Your task to perform on an android device: Open ESPN.com Image 0: 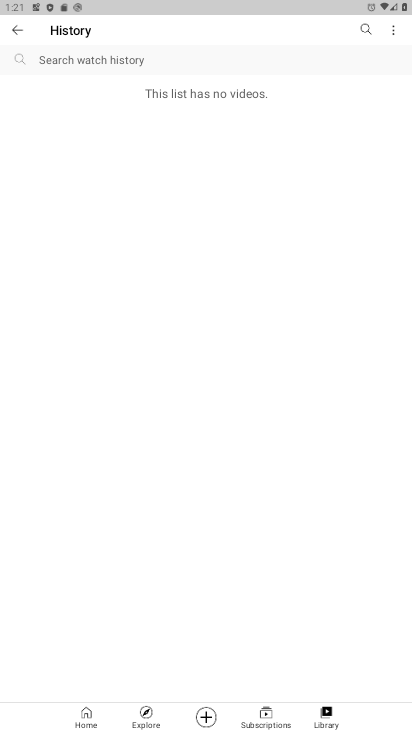
Step 0: press home button
Your task to perform on an android device: Open ESPN.com Image 1: 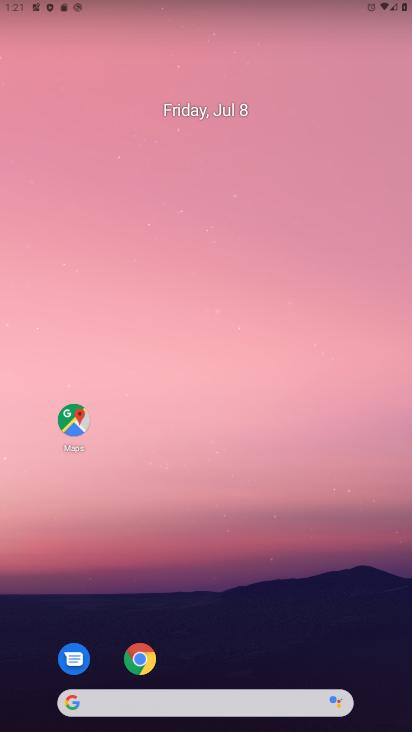
Step 1: click (140, 654)
Your task to perform on an android device: Open ESPN.com Image 2: 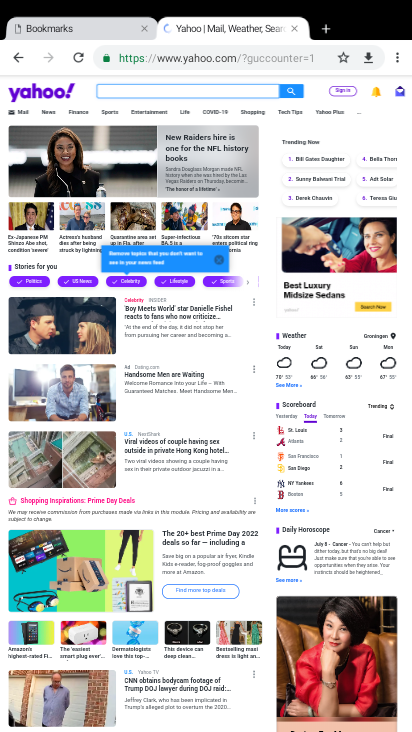
Step 2: click (401, 56)
Your task to perform on an android device: Open ESPN.com Image 3: 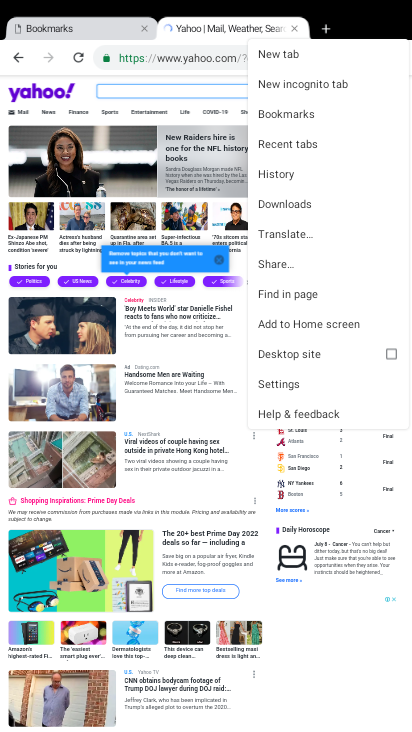
Step 3: click (299, 51)
Your task to perform on an android device: Open ESPN.com Image 4: 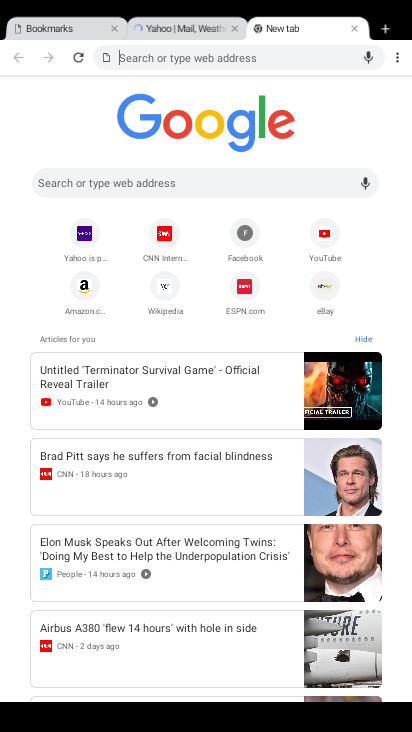
Step 4: click (248, 282)
Your task to perform on an android device: Open ESPN.com Image 5: 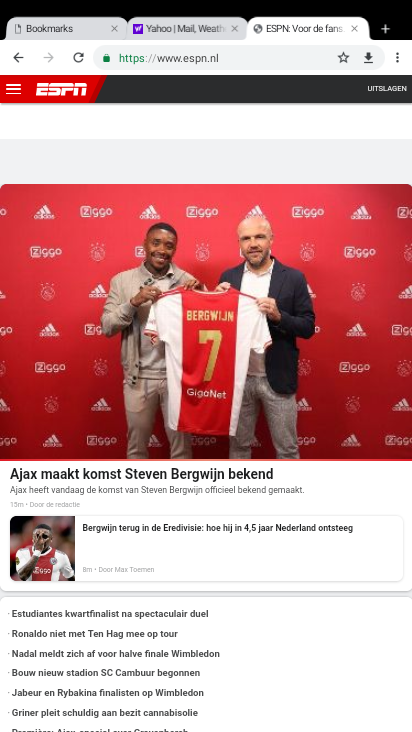
Step 5: task complete